Your task to perform on an android device: manage bookmarks in the chrome app Image 0: 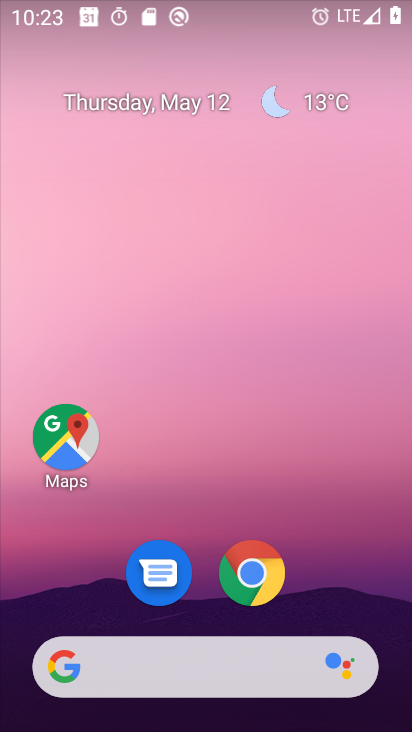
Step 0: click (252, 578)
Your task to perform on an android device: manage bookmarks in the chrome app Image 1: 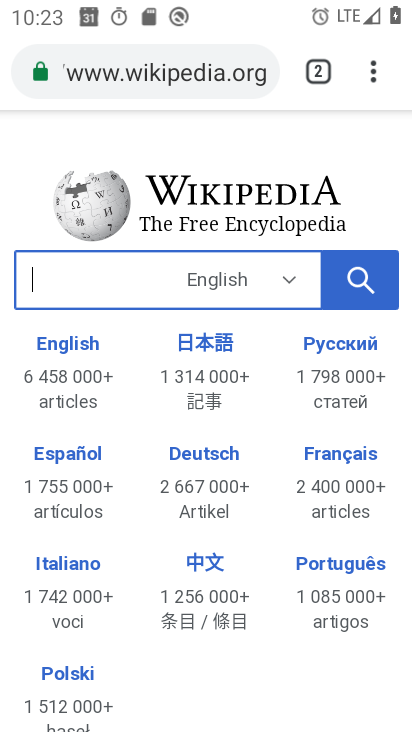
Step 1: click (371, 70)
Your task to perform on an android device: manage bookmarks in the chrome app Image 2: 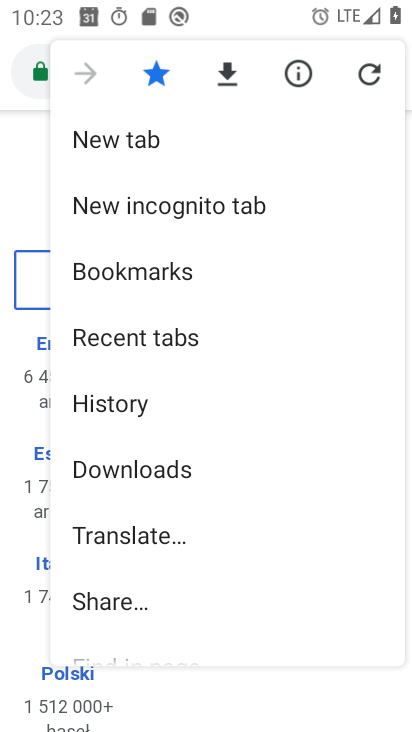
Step 2: drag from (304, 631) to (305, 367)
Your task to perform on an android device: manage bookmarks in the chrome app Image 3: 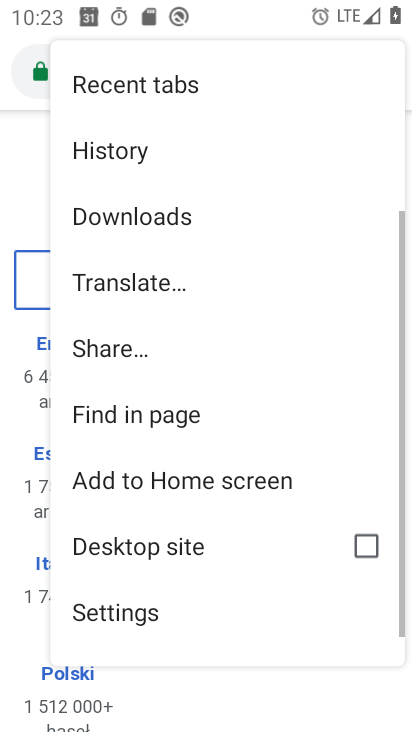
Step 3: drag from (284, 633) to (286, 293)
Your task to perform on an android device: manage bookmarks in the chrome app Image 4: 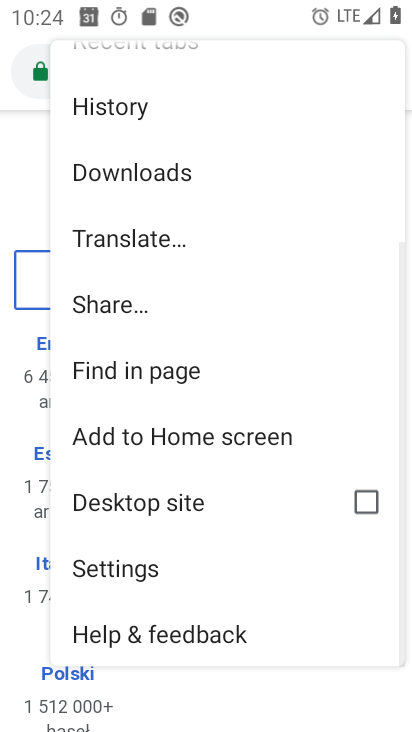
Step 4: drag from (293, 620) to (275, 321)
Your task to perform on an android device: manage bookmarks in the chrome app Image 5: 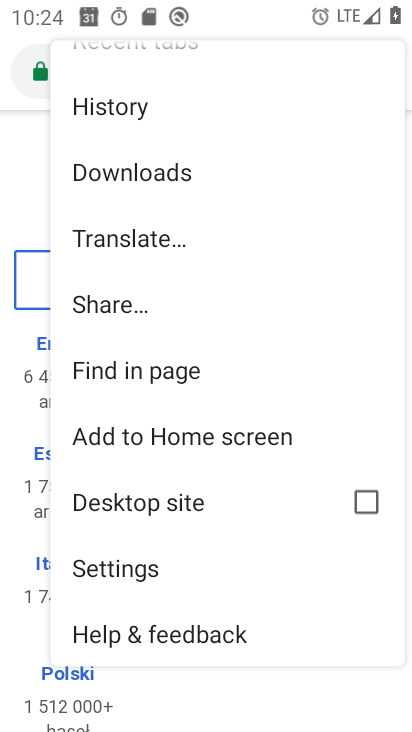
Step 5: click (99, 564)
Your task to perform on an android device: manage bookmarks in the chrome app Image 6: 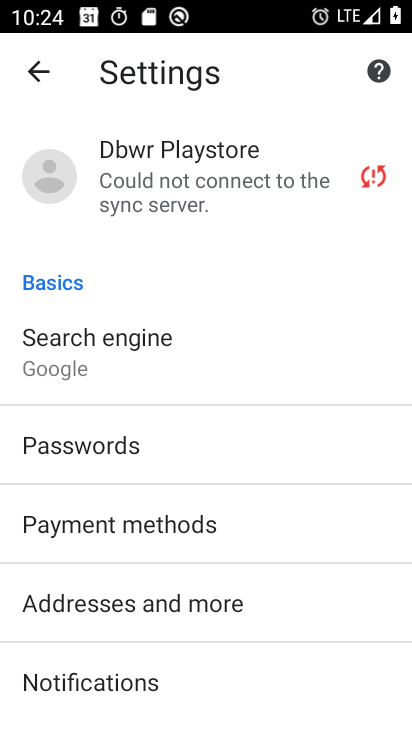
Step 6: click (33, 72)
Your task to perform on an android device: manage bookmarks in the chrome app Image 7: 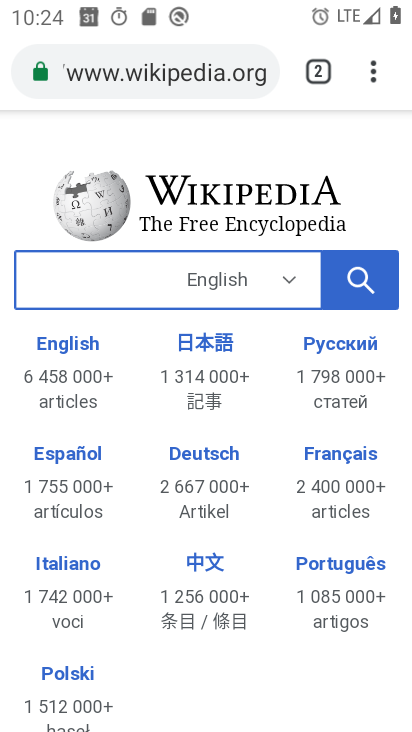
Step 7: click (370, 67)
Your task to perform on an android device: manage bookmarks in the chrome app Image 8: 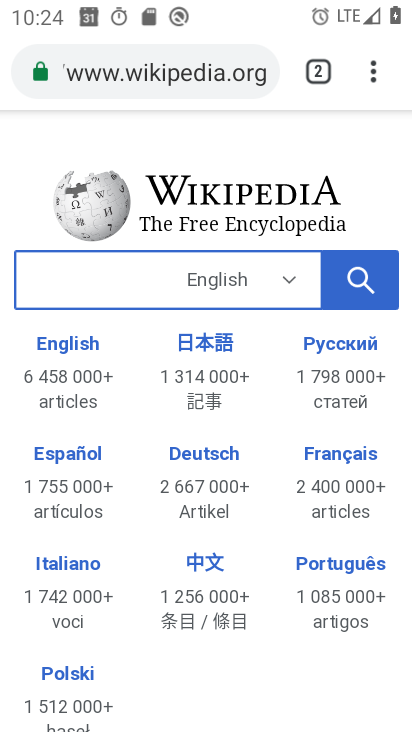
Step 8: click (370, 73)
Your task to perform on an android device: manage bookmarks in the chrome app Image 9: 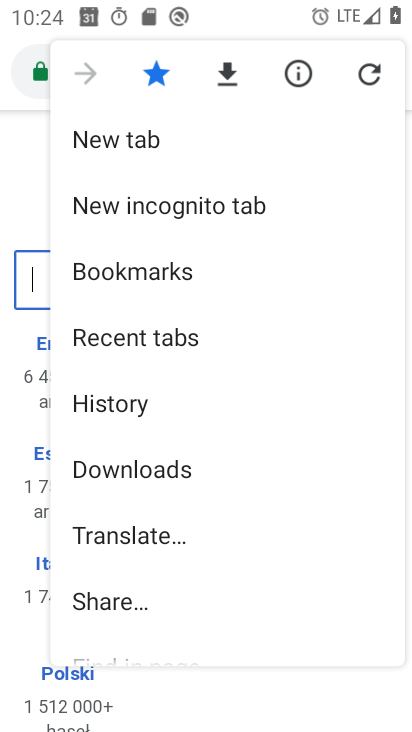
Step 9: click (145, 268)
Your task to perform on an android device: manage bookmarks in the chrome app Image 10: 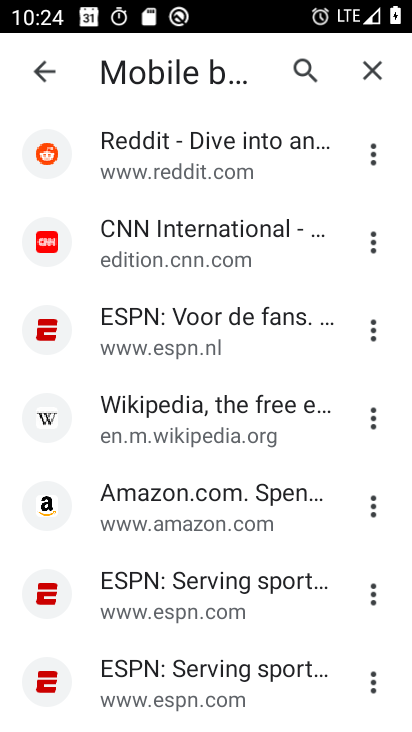
Step 10: click (371, 420)
Your task to perform on an android device: manage bookmarks in the chrome app Image 11: 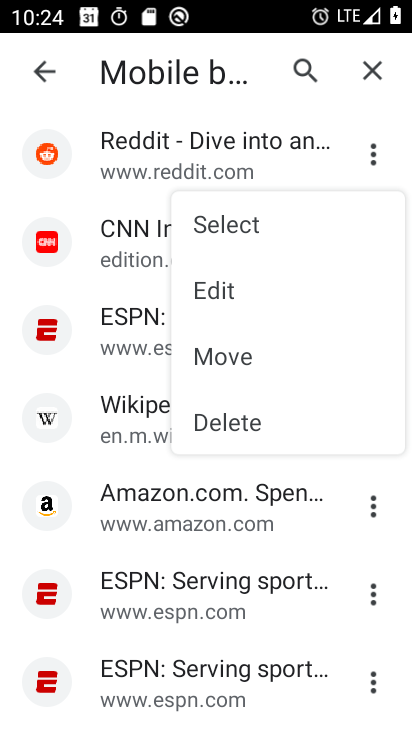
Step 11: click (240, 426)
Your task to perform on an android device: manage bookmarks in the chrome app Image 12: 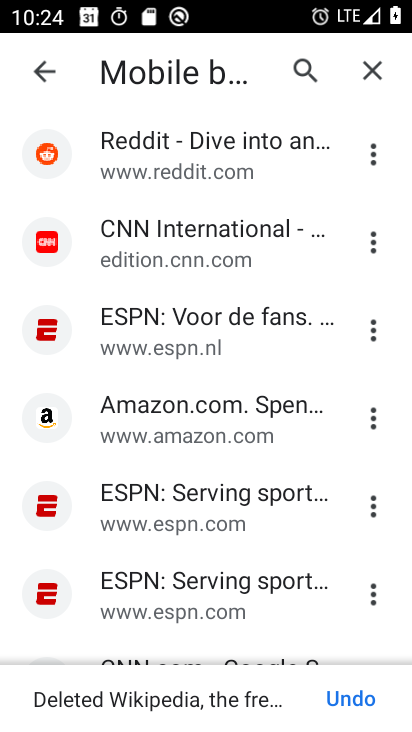
Step 12: task complete